Your task to perform on an android device: Open eBay Image 0: 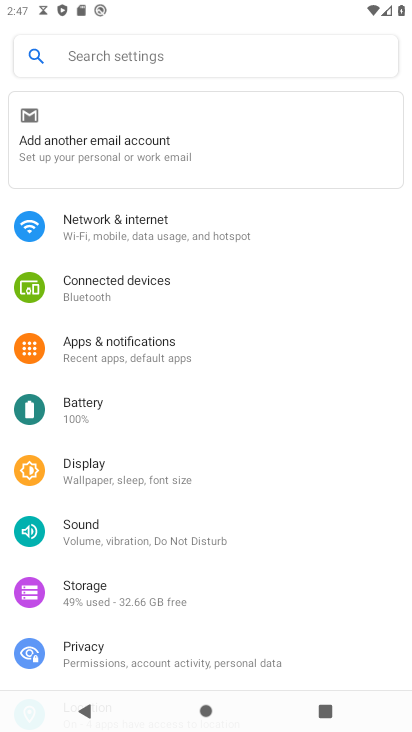
Step 0: press home button
Your task to perform on an android device: Open eBay Image 1: 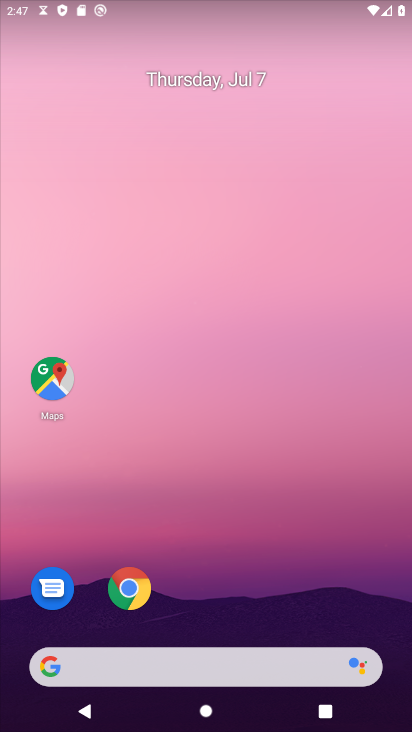
Step 1: click (129, 585)
Your task to perform on an android device: Open eBay Image 2: 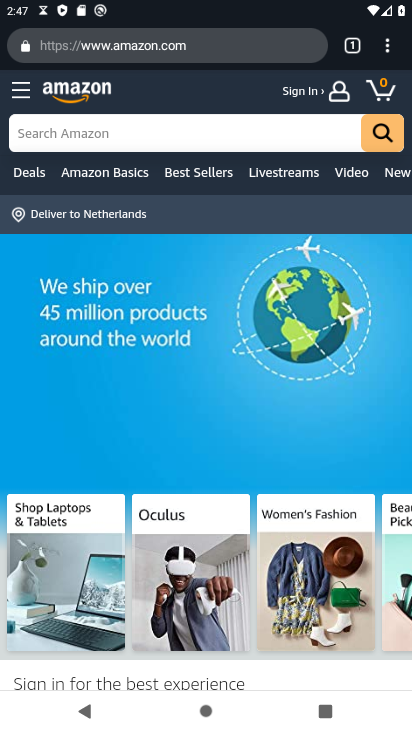
Step 2: click (246, 39)
Your task to perform on an android device: Open eBay Image 3: 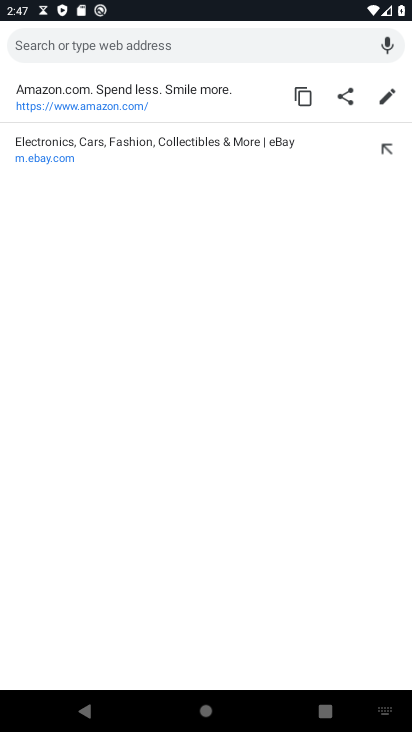
Step 3: click (272, 152)
Your task to perform on an android device: Open eBay Image 4: 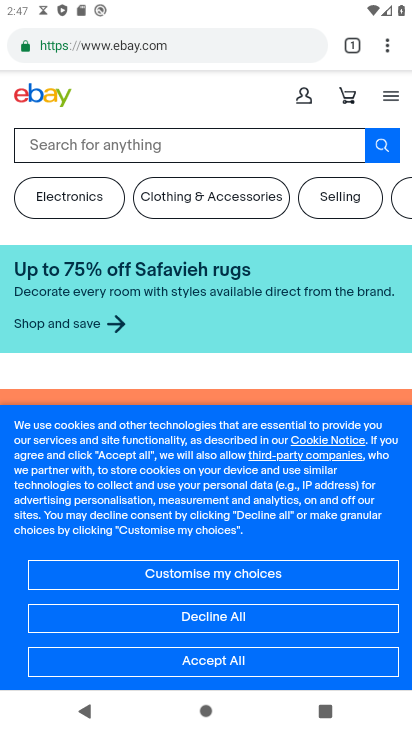
Step 4: click (207, 663)
Your task to perform on an android device: Open eBay Image 5: 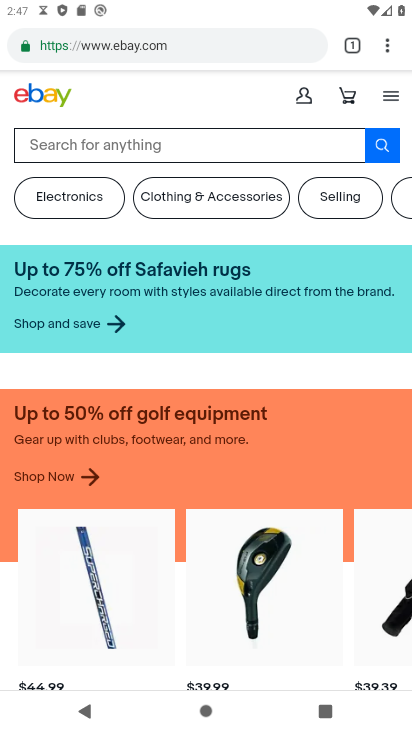
Step 5: task complete